Your task to perform on an android device: change the clock display to analog Image 0: 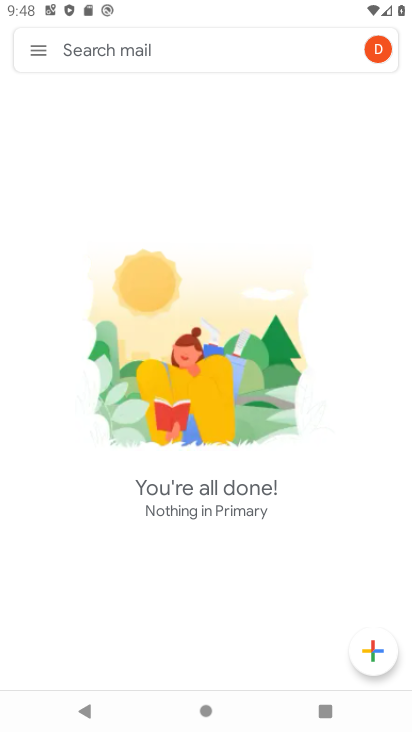
Step 0: press home button
Your task to perform on an android device: change the clock display to analog Image 1: 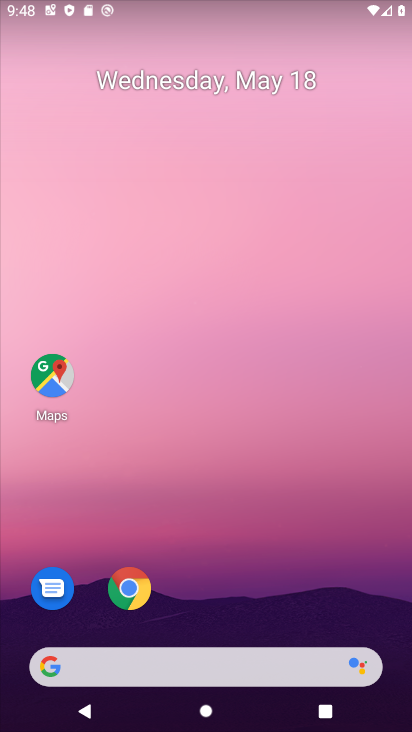
Step 1: drag from (252, 680) to (174, 167)
Your task to perform on an android device: change the clock display to analog Image 2: 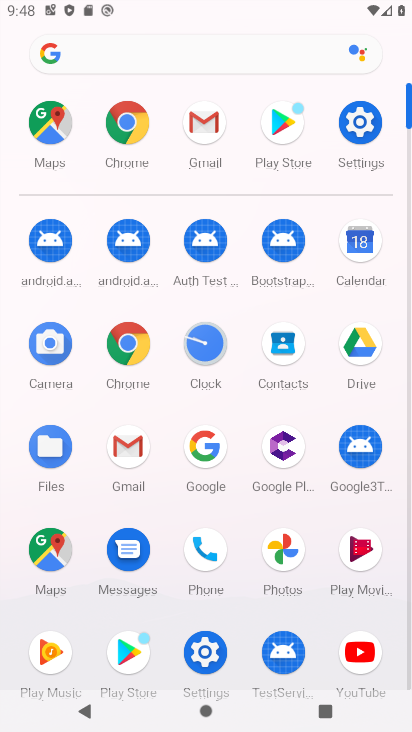
Step 2: click (217, 341)
Your task to perform on an android device: change the clock display to analog Image 3: 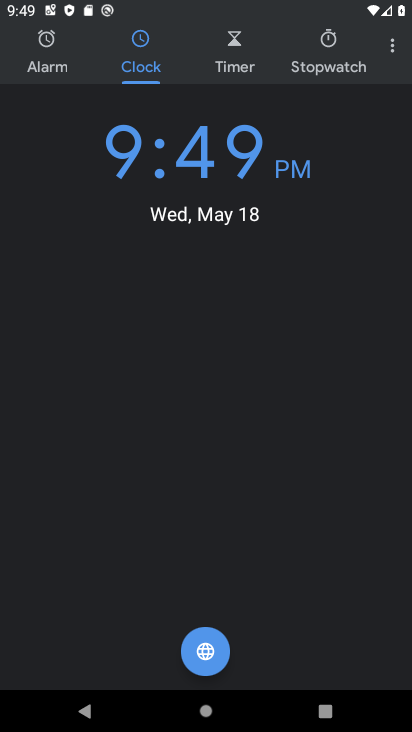
Step 3: click (382, 48)
Your task to perform on an android device: change the clock display to analog Image 4: 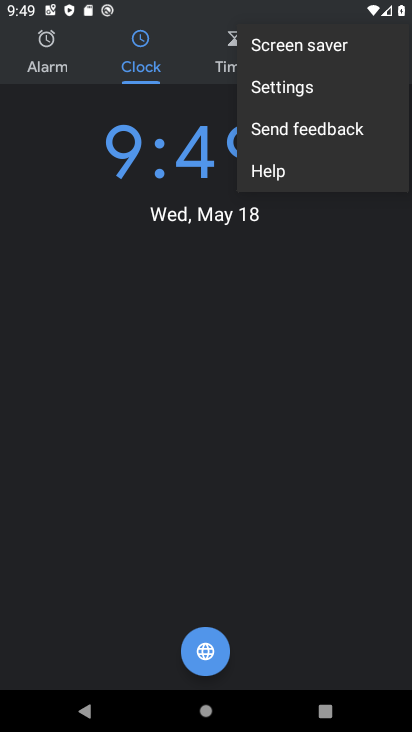
Step 4: click (278, 102)
Your task to perform on an android device: change the clock display to analog Image 5: 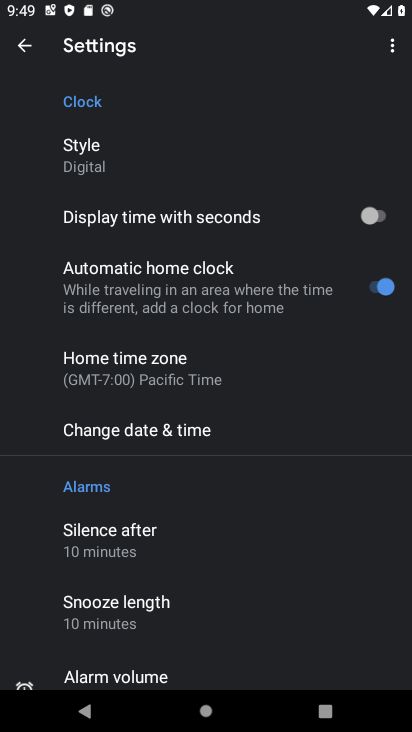
Step 5: click (132, 172)
Your task to perform on an android device: change the clock display to analog Image 6: 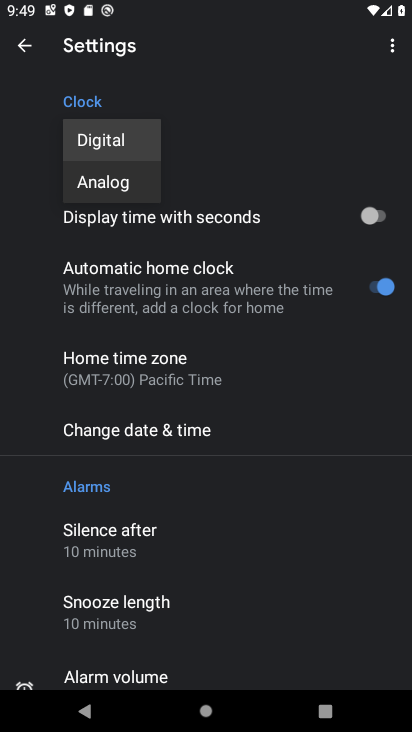
Step 6: click (114, 184)
Your task to perform on an android device: change the clock display to analog Image 7: 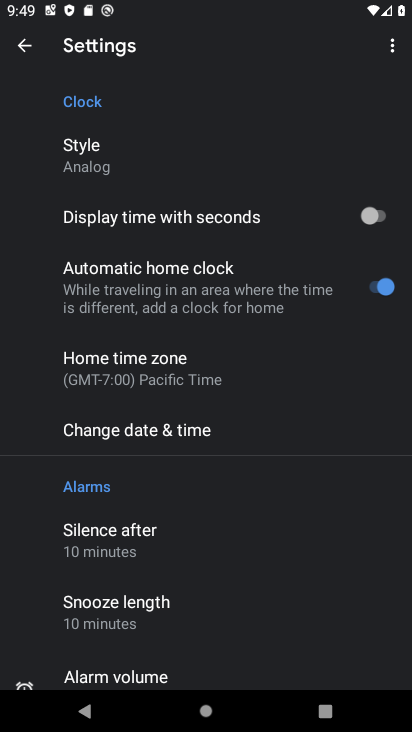
Step 7: task complete